Your task to perform on an android device: Search for pizza restaurants on Maps Image 0: 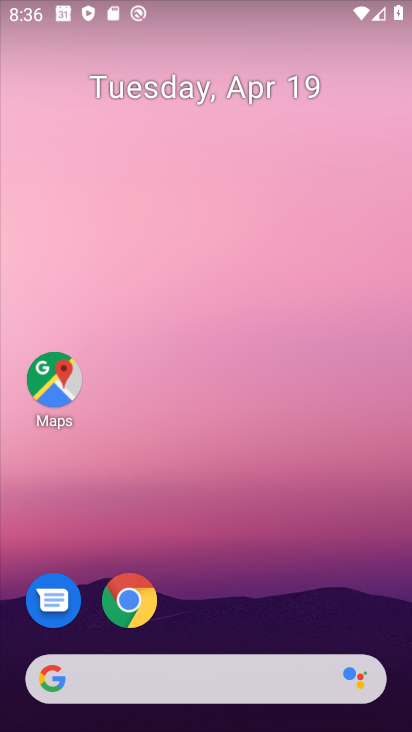
Step 0: drag from (249, 613) to (230, 62)
Your task to perform on an android device: Search for pizza restaurants on Maps Image 1: 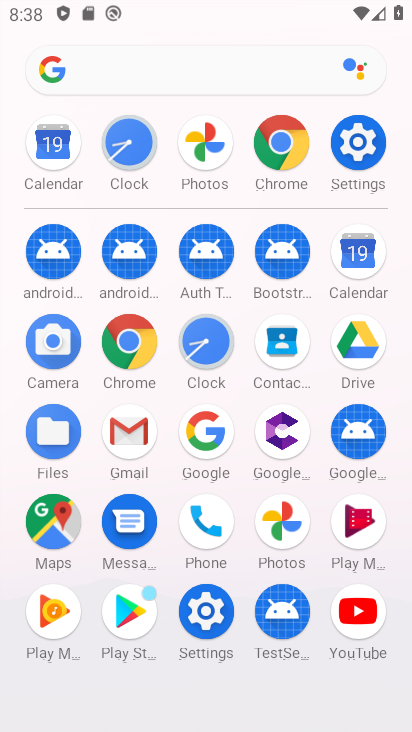
Step 1: click (51, 504)
Your task to perform on an android device: Search for pizza restaurants on Maps Image 2: 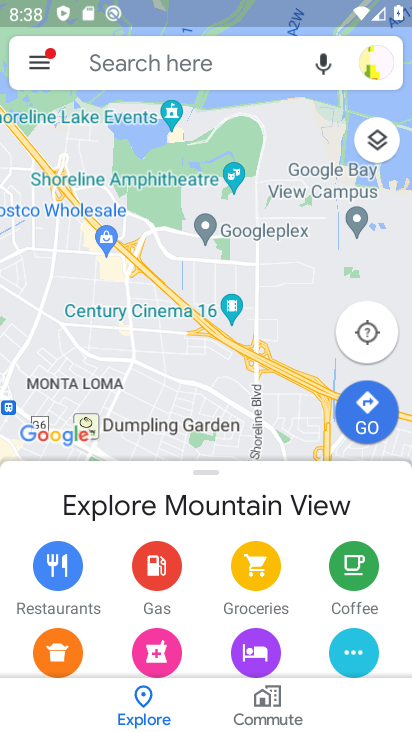
Step 2: click (205, 68)
Your task to perform on an android device: Search for pizza restaurants on Maps Image 3: 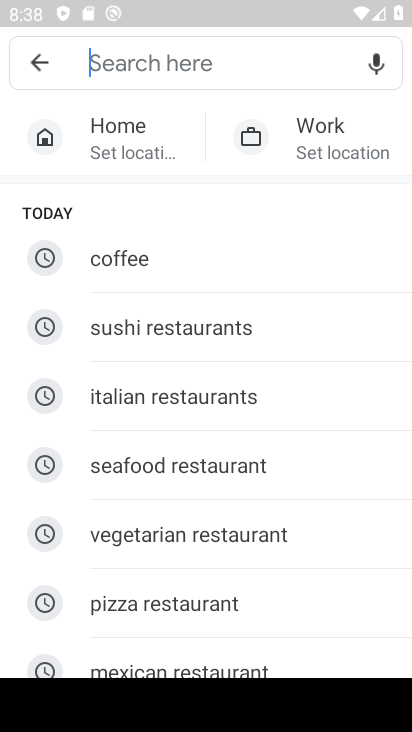
Step 3: click (123, 597)
Your task to perform on an android device: Search for pizza restaurants on Maps Image 4: 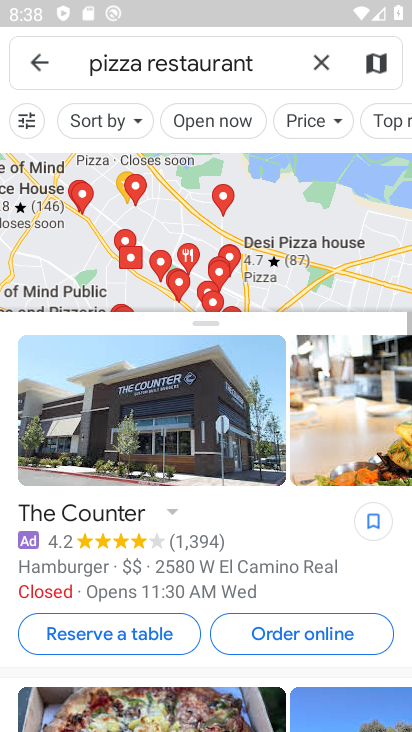
Step 4: task complete